Your task to perform on an android device: Open privacy settings Image 0: 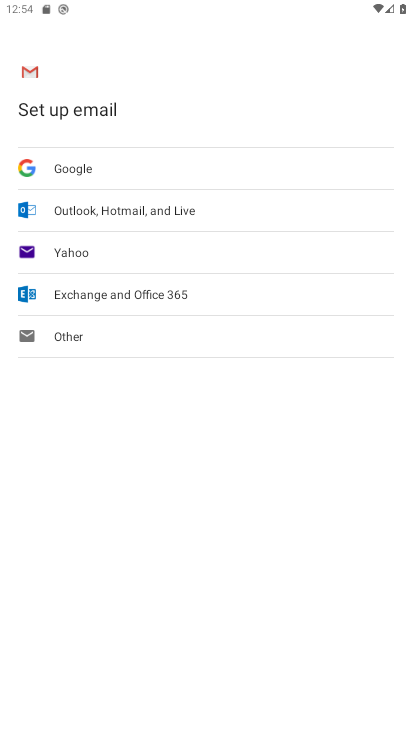
Step 0: press home button
Your task to perform on an android device: Open privacy settings Image 1: 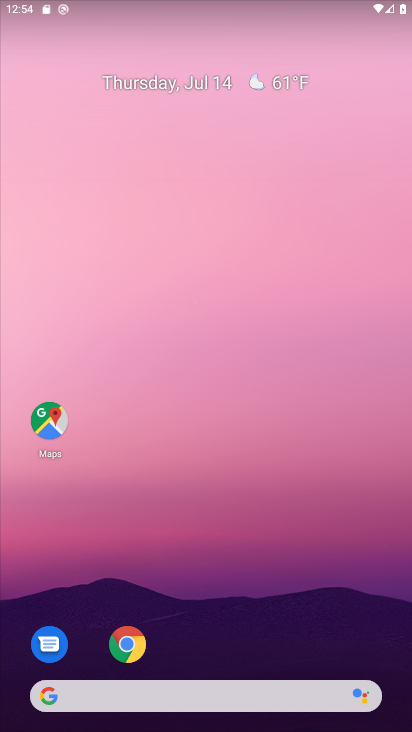
Step 1: click (369, 498)
Your task to perform on an android device: Open privacy settings Image 2: 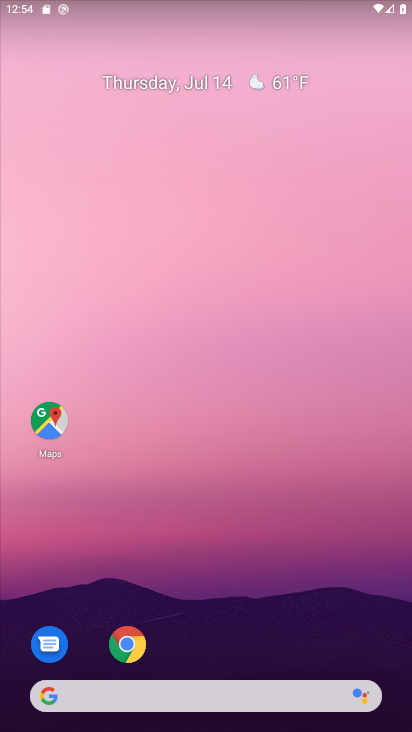
Step 2: click (255, 603)
Your task to perform on an android device: Open privacy settings Image 3: 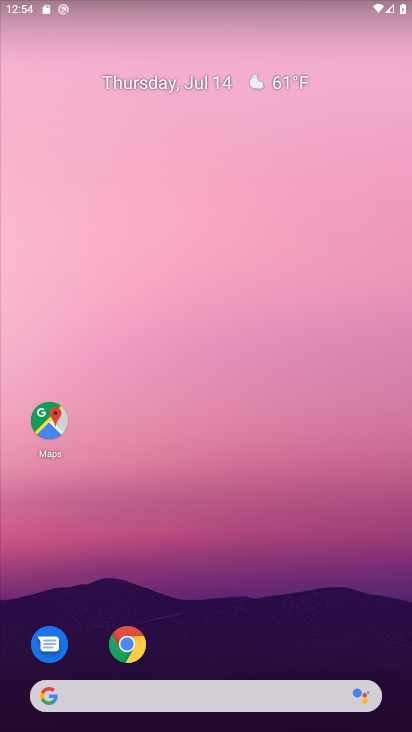
Step 3: drag from (255, 603) to (348, 6)
Your task to perform on an android device: Open privacy settings Image 4: 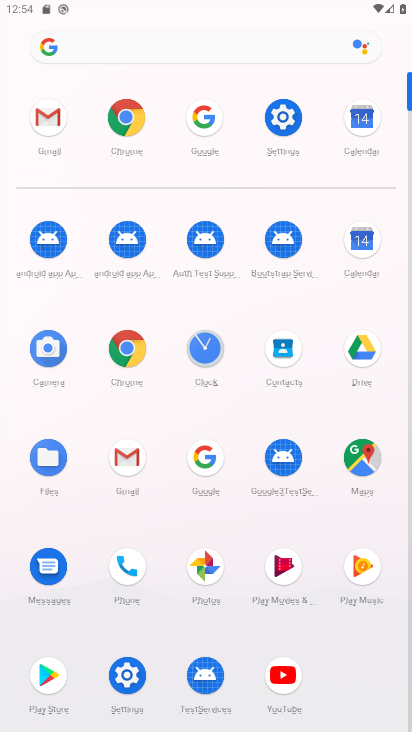
Step 4: click (283, 125)
Your task to perform on an android device: Open privacy settings Image 5: 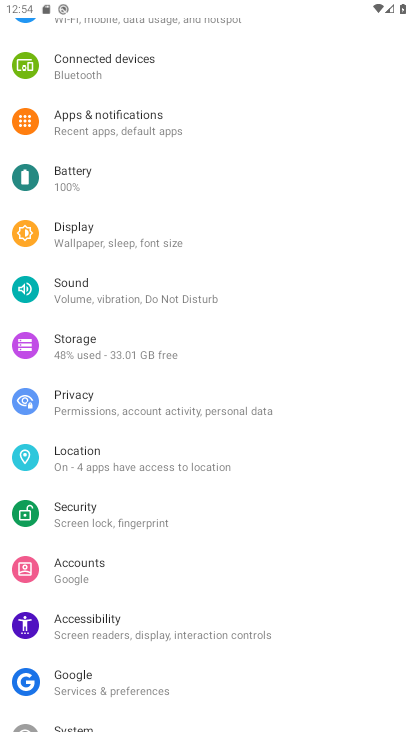
Step 5: click (121, 404)
Your task to perform on an android device: Open privacy settings Image 6: 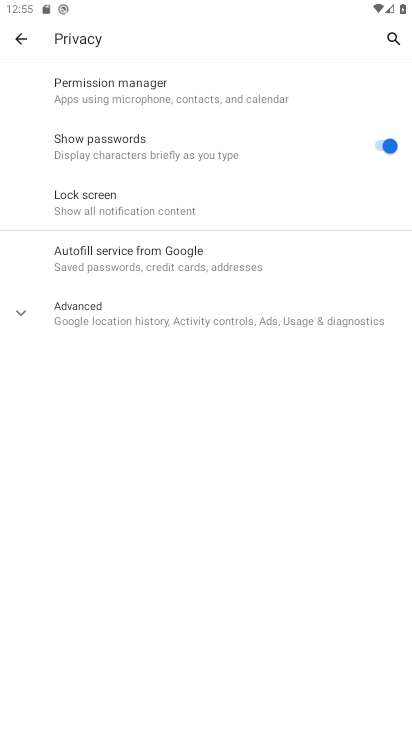
Step 6: task complete